Your task to perform on an android device: Show me popular videos on Youtube Image 0: 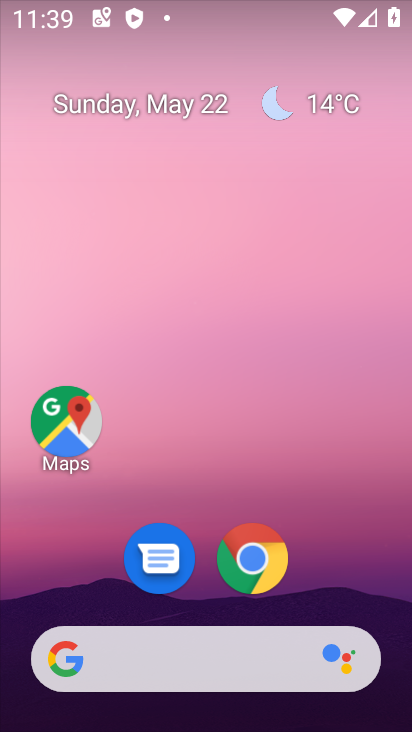
Step 0: drag from (343, 562) to (405, 20)
Your task to perform on an android device: Show me popular videos on Youtube Image 1: 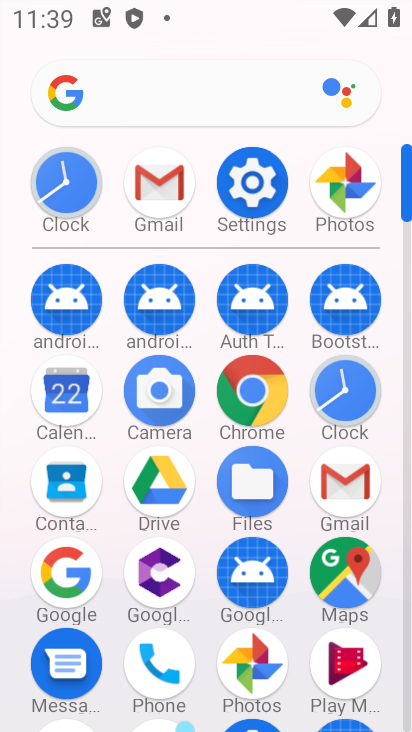
Step 1: drag from (404, 566) to (407, 531)
Your task to perform on an android device: Show me popular videos on Youtube Image 2: 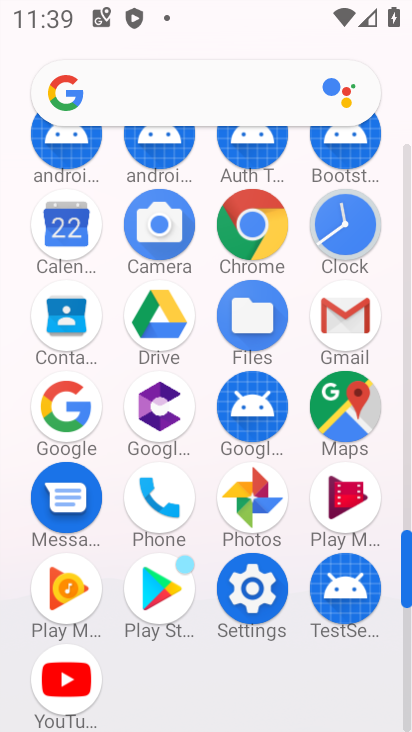
Step 2: click (63, 681)
Your task to perform on an android device: Show me popular videos on Youtube Image 3: 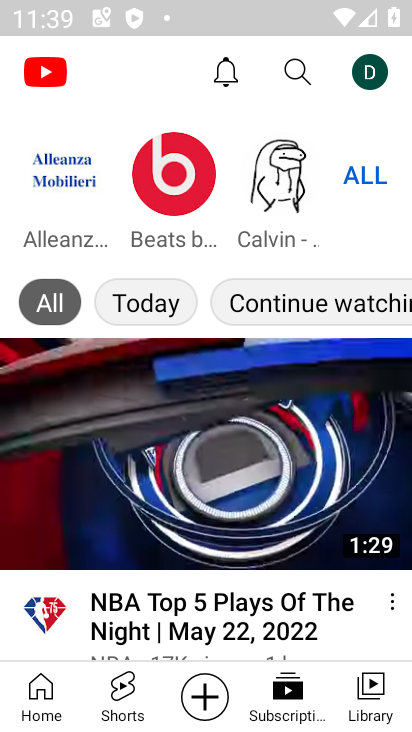
Step 3: click (27, 705)
Your task to perform on an android device: Show me popular videos on Youtube Image 4: 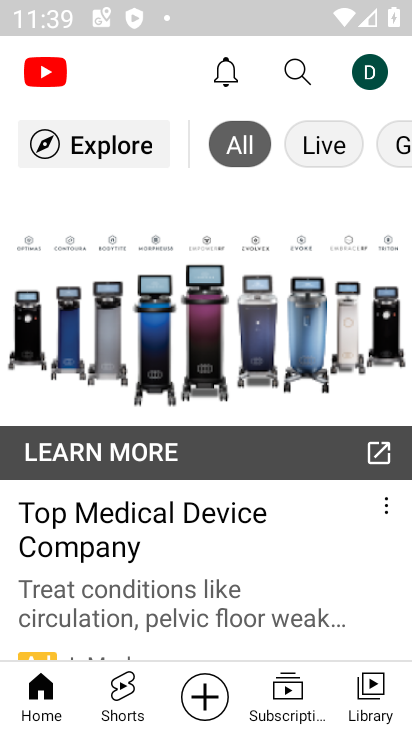
Step 4: task complete